Your task to perform on an android device: toggle show notifications on the lock screen Image 0: 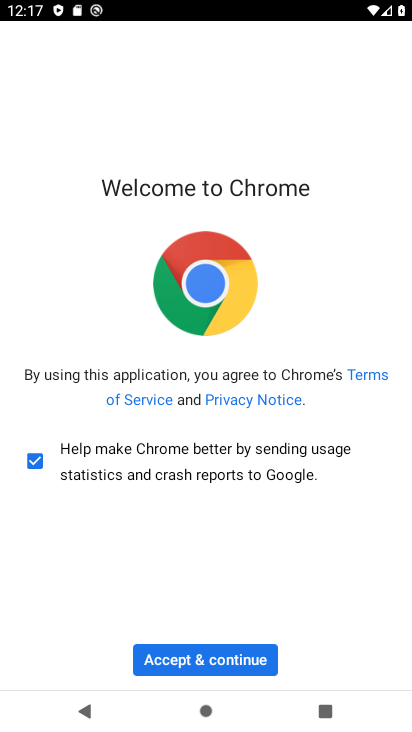
Step 0: press home button
Your task to perform on an android device: toggle show notifications on the lock screen Image 1: 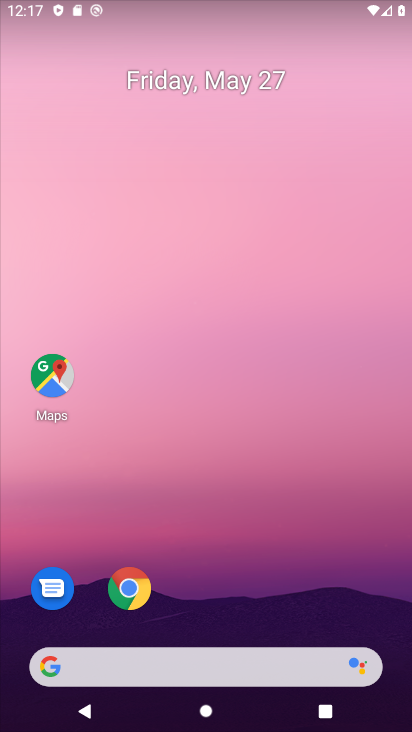
Step 1: drag from (320, 579) to (272, 0)
Your task to perform on an android device: toggle show notifications on the lock screen Image 2: 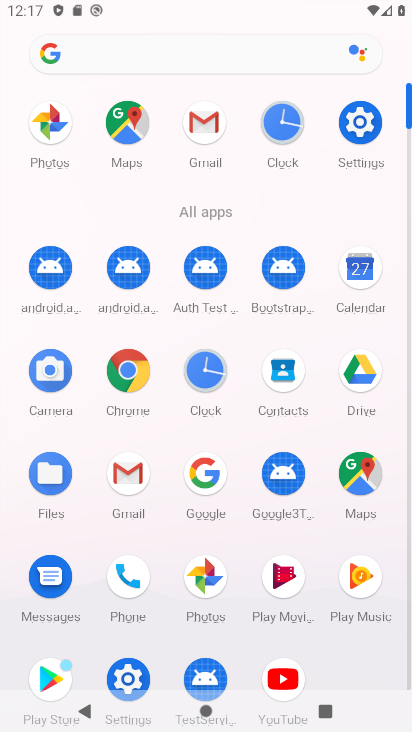
Step 2: click (362, 158)
Your task to perform on an android device: toggle show notifications on the lock screen Image 3: 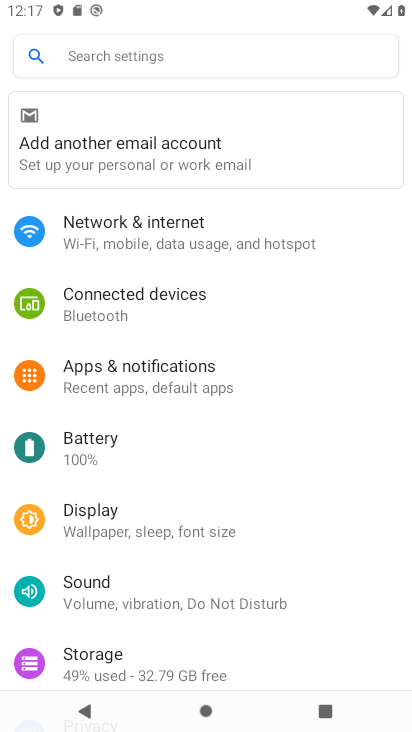
Step 3: click (109, 390)
Your task to perform on an android device: toggle show notifications on the lock screen Image 4: 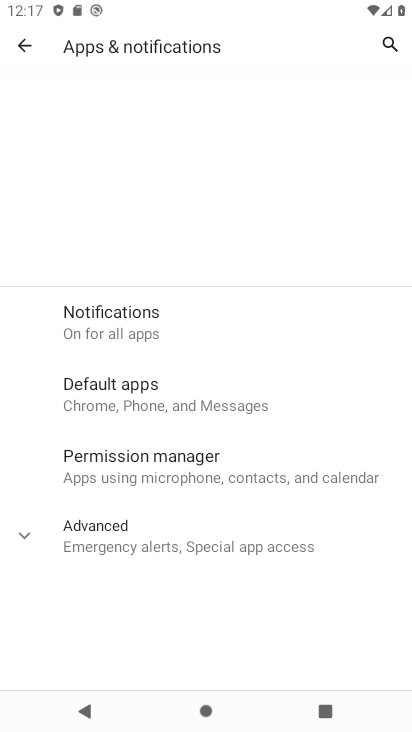
Step 4: click (118, 338)
Your task to perform on an android device: toggle show notifications on the lock screen Image 5: 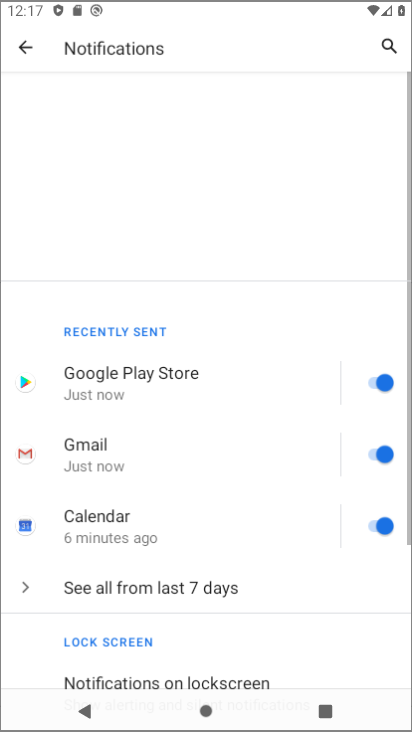
Step 5: drag from (221, 613) to (295, 114)
Your task to perform on an android device: toggle show notifications on the lock screen Image 6: 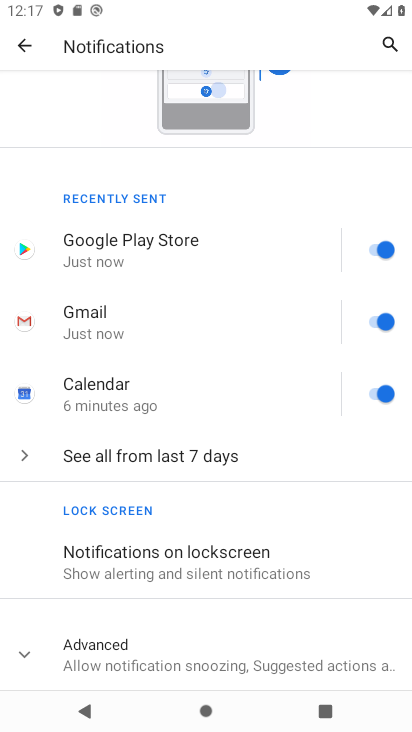
Step 6: drag from (240, 631) to (265, 112)
Your task to perform on an android device: toggle show notifications on the lock screen Image 7: 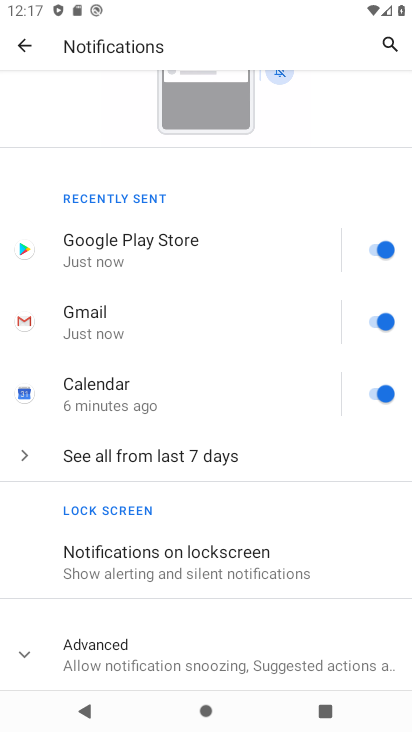
Step 7: click (223, 543)
Your task to perform on an android device: toggle show notifications on the lock screen Image 8: 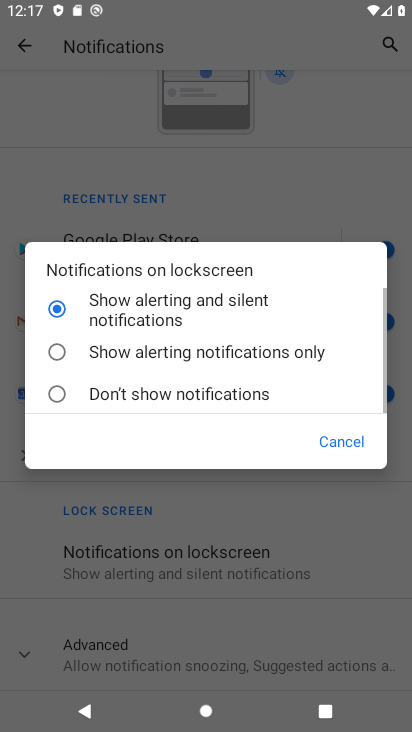
Step 8: click (224, 367)
Your task to perform on an android device: toggle show notifications on the lock screen Image 9: 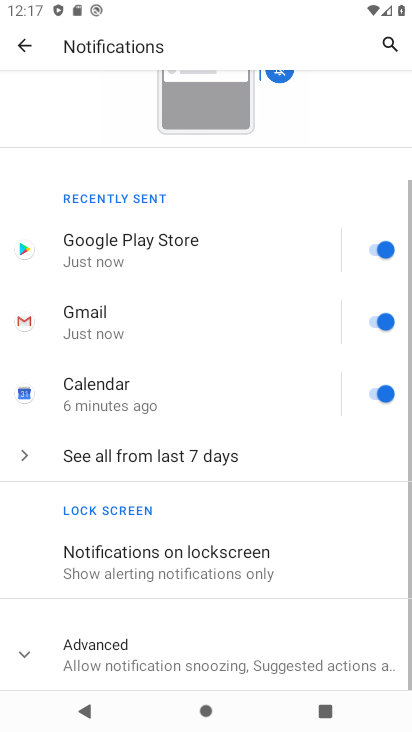
Step 9: task complete